Your task to perform on an android device: manage bookmarks in the chrome app Image 0: 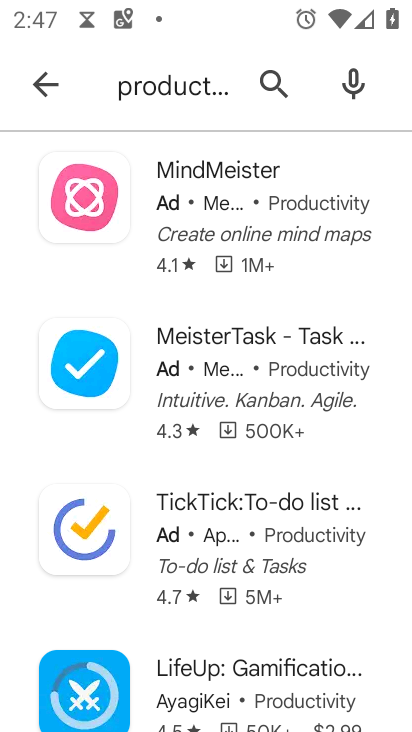
Step 0: task complete